Your task to perform on an android device: Go to eBay Image 0: 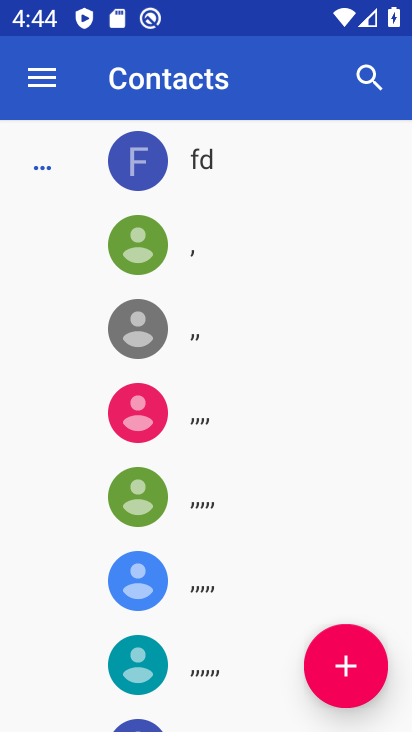
Step 0: press back button
Your task to perform on an android device: Go to eBay Image 1: 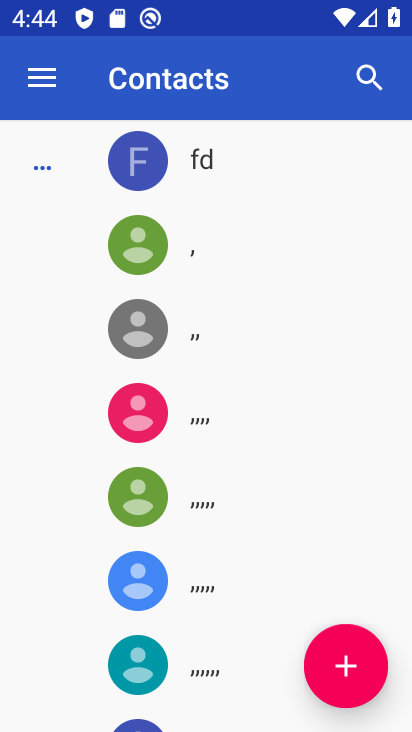
Step 1: press back button
Your task to perform on an android device: Go to eBay Image 2: 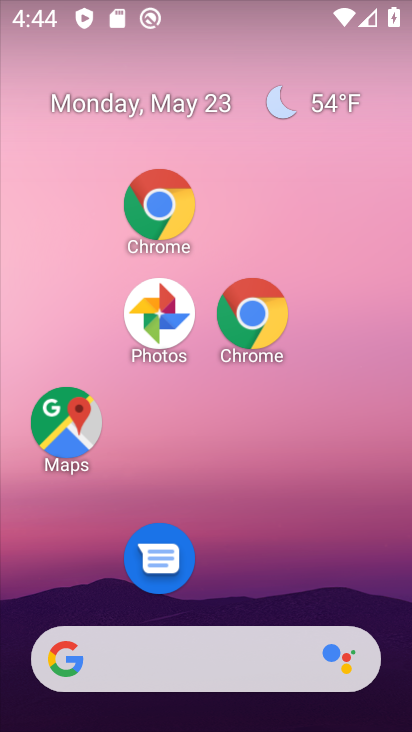
Step 2: drag from (267, 685) to (133, 91)
Your task to perform on an android device: Go to eBay Image 3: 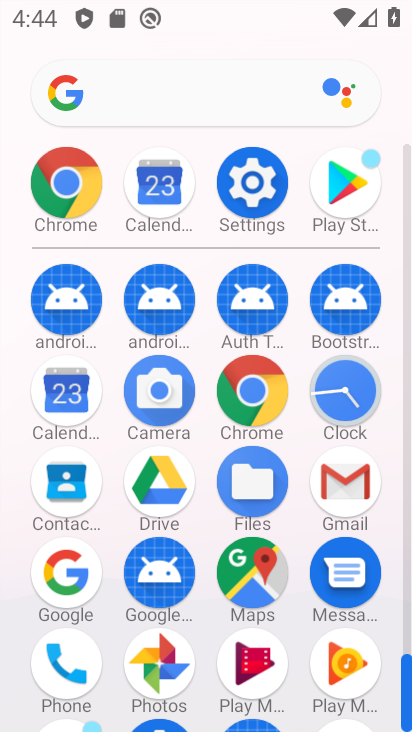
Step 3: click (63, 180)
Your task to perform on an android device: Go to eBay Image 4: 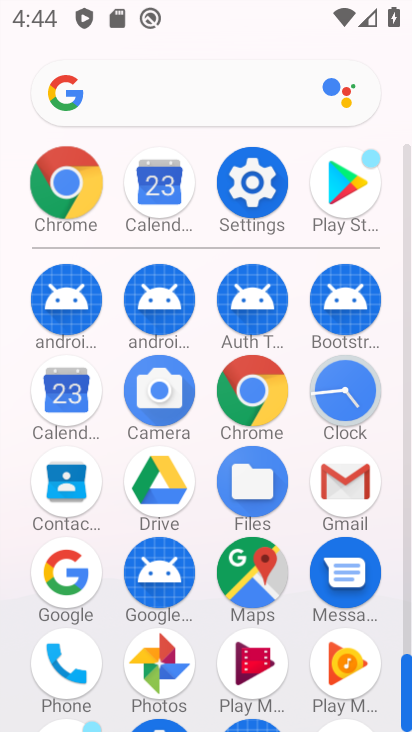
Step 4: click (63, 180)
Your task to perform on an android device: Go to eBay Image 5: 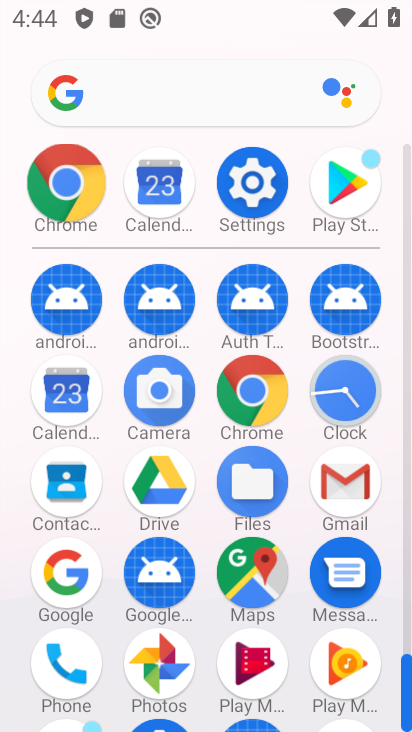
Step 5: click (70, 181)
Your task to perform on an android device: Go to eBay Image 6: 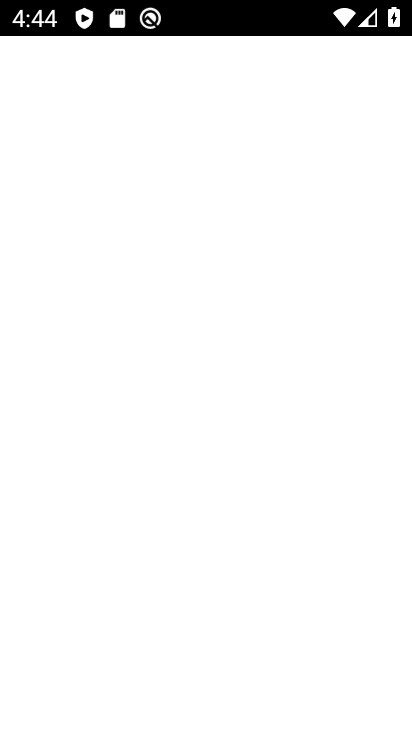
Step 6: click (70, 181)
Your task to perform on an android device: Go to eBay Image 7: 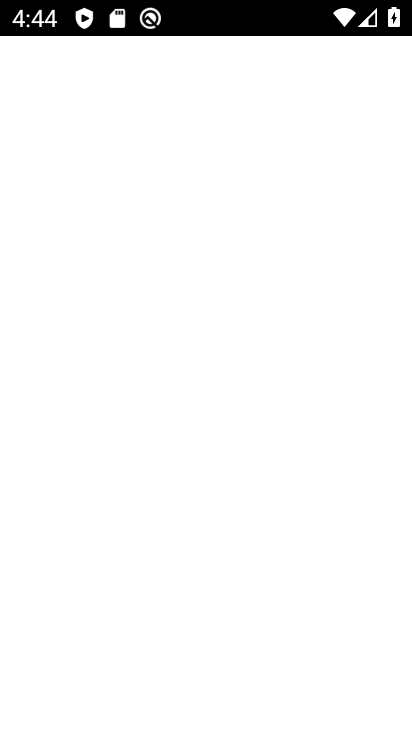
Step 7: click (70, 181)
Your task to perform on an android device: Go to eBay Image 8: 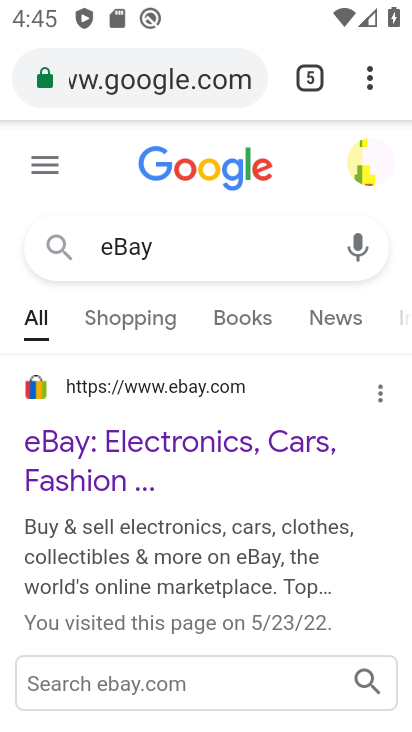
Step 8: task complete